Your task to perform on an android device: Open my contact list Image 0: 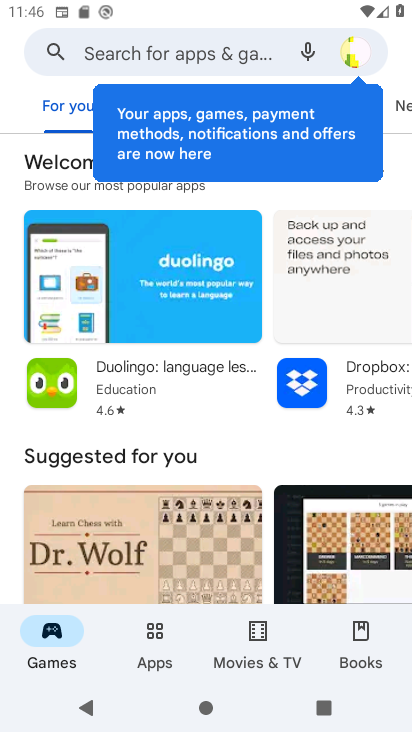
Step 0: press home button
Your task to perform on an android device: Open my contact list Image 1: 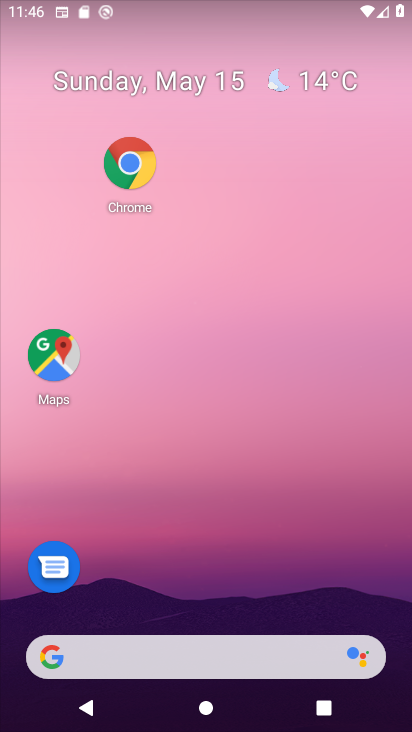
Step 1: drag from (106, 608) to (175, 70)
Your task to perform on an android device: Open my contact list Image 2: 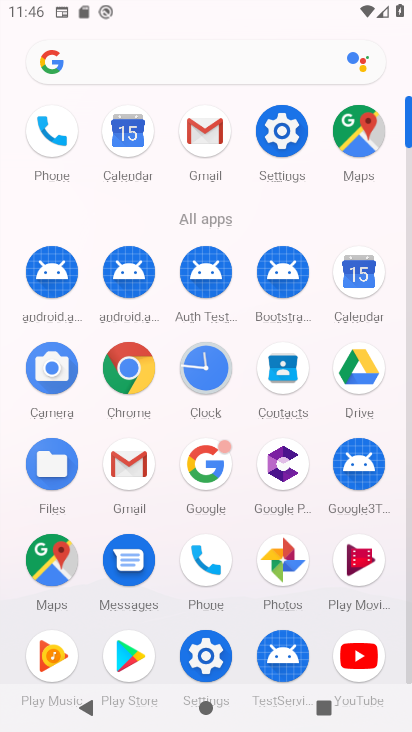
Step 2: click (286, 361)
Your task to perform on an android device: Open my contact list Image 3: 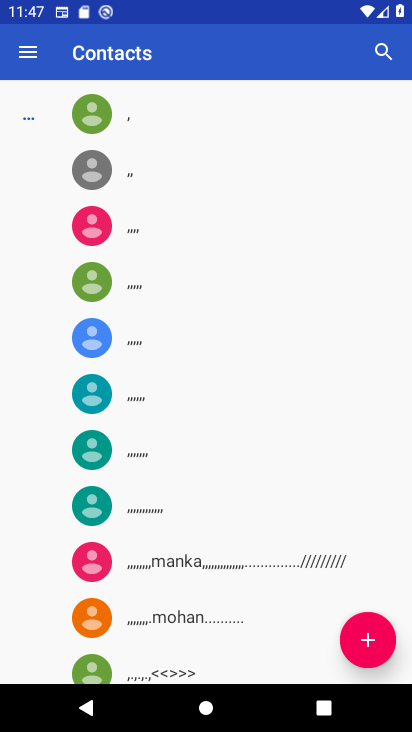
Step 3: task complete